Your task to perform on an android device: Turn off the flashlight Image 0: 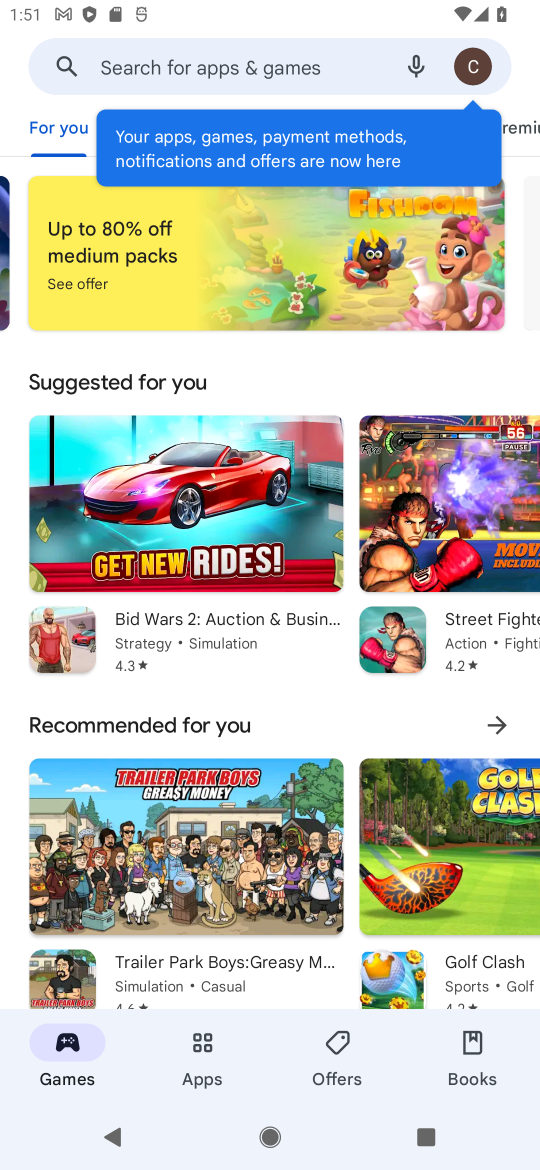
Step 0: drag from (374, 42) to (320, 1089)
Your task to perform on an android device: Turn off the flashlight Image 1: 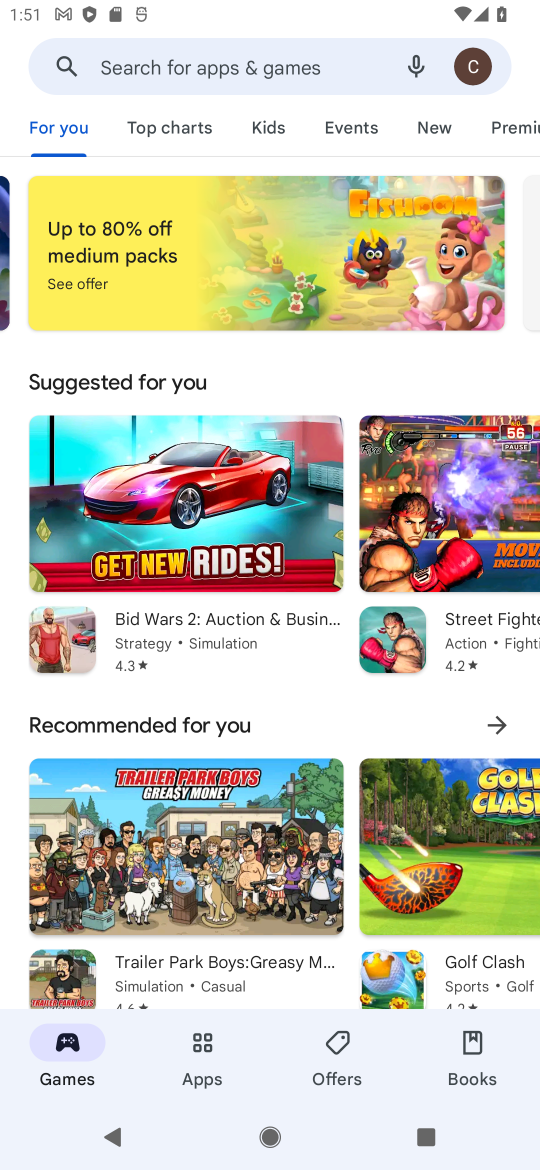
Step 1: drag from (223, 6) to (250, 1067)
Your task to perform on an android device: Turn off the flashlight Image 2: 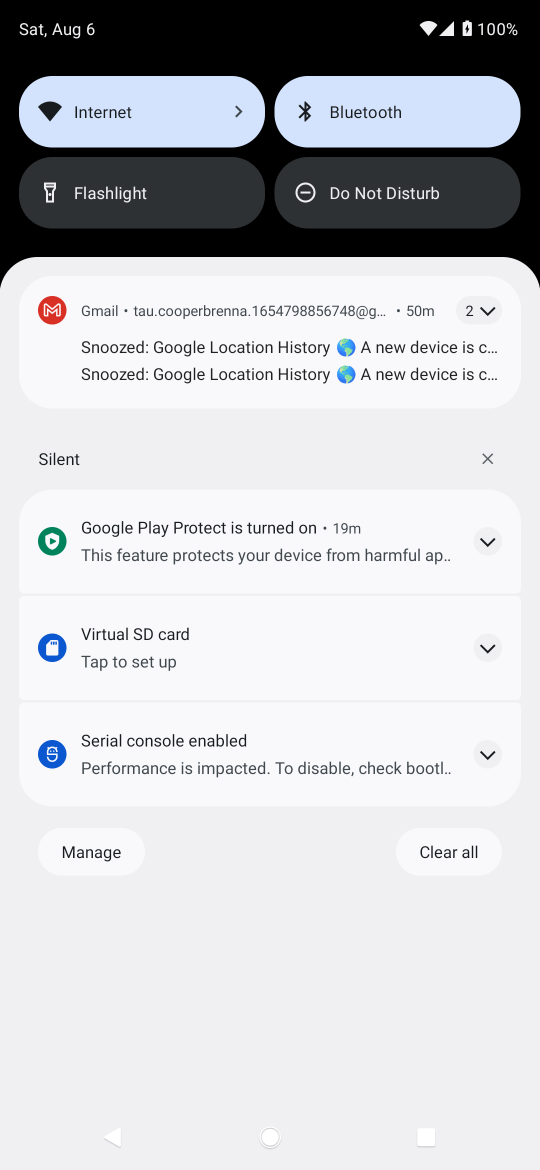
Step 2: click (105, 194)
Your task to perform on an android device: Turn off the flashlight Image 3: 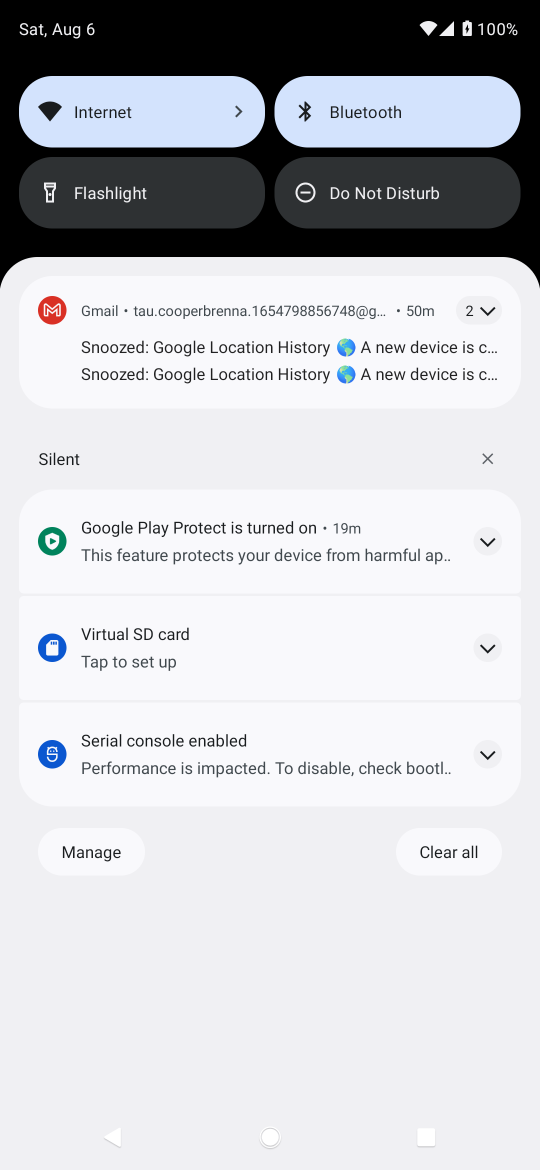
Step 3: task complete